Your task to perform on an android device: Go to privacy settings Image 0: 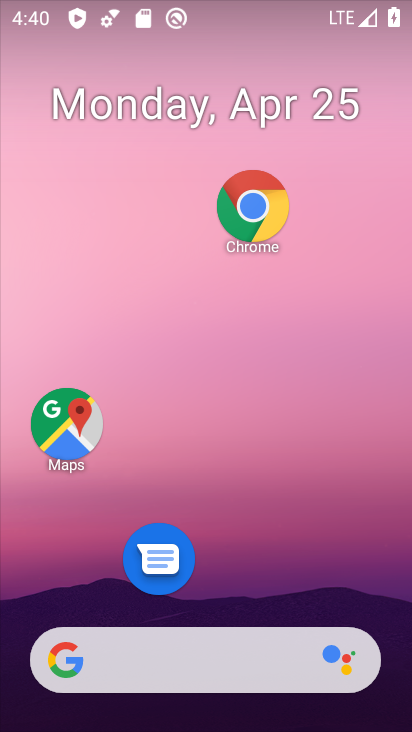
Step 0: drag from (242, 537) to (209, 17)
Your task to perform on an android device: Go to privacy settings Image 1: 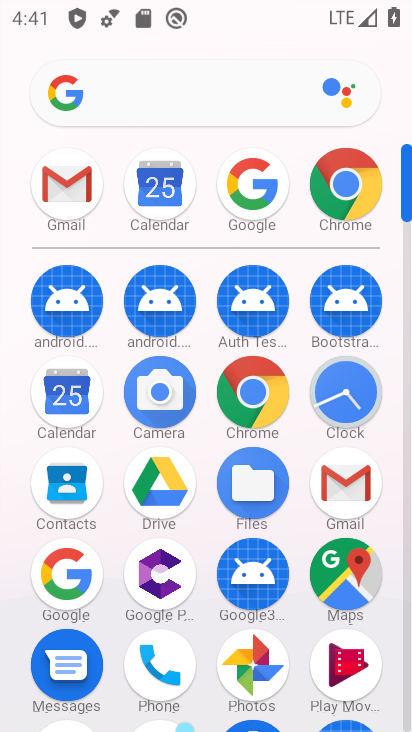
Step 1: drag from (120, 544) to (135, 338)
Your task to perform on an android device: Go to privacy settings Image 2: 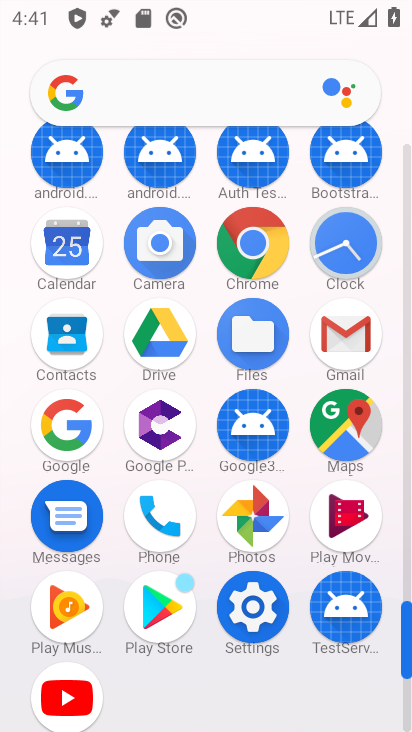
Step 2: click (250, 604)
Your task to perform on an android device: Go to privacy settings Image 3: 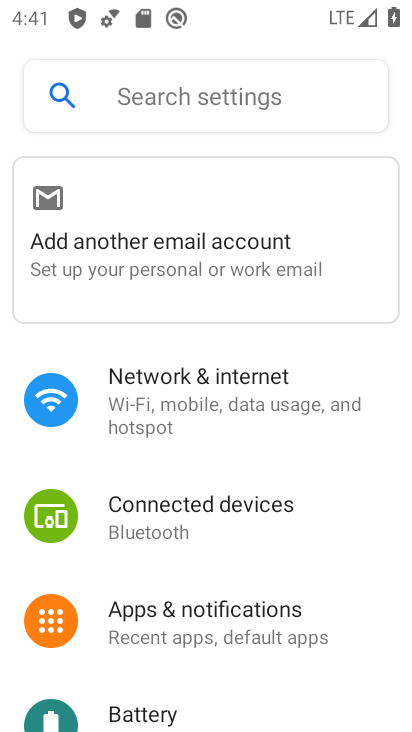
Step 3: drag from (248, 586) to (274, 540)
Your task to perform on an android device: Go to privacy settings Image 4: 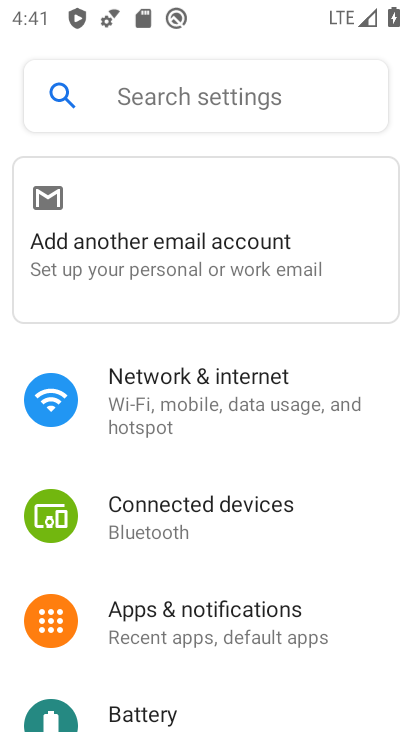
Step 4: drag from (217, 667) to (298, 511)
Your task to perform on an android device: Go to privacy settings Image 5: 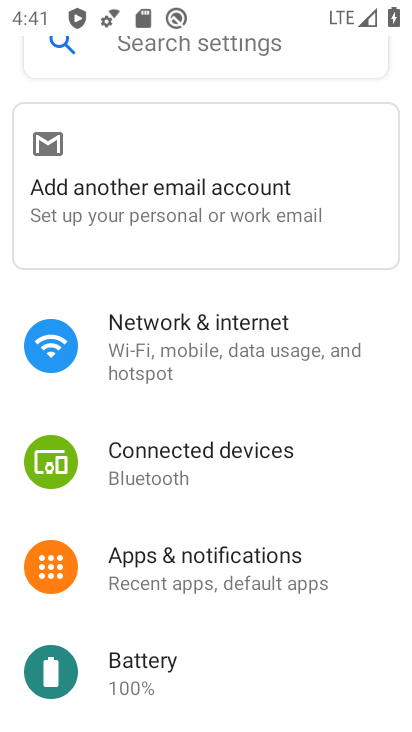
Step 5: drag from (224, 640) to (303, 488)
Your task to perform on an android device: Go to privacy settings Image 6: 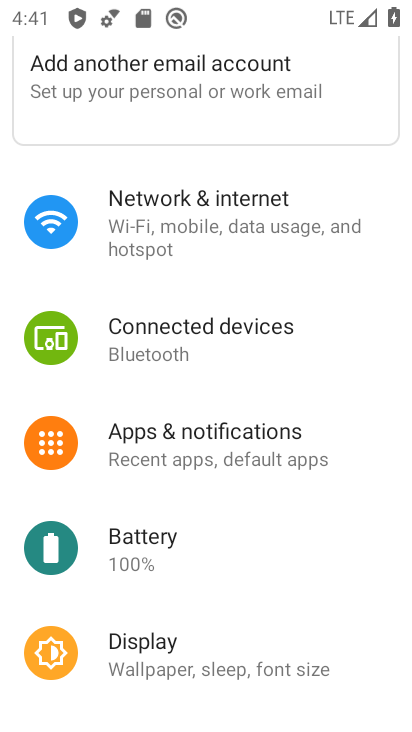
Step 6: drag from (187, 607) to (293, 474)
Your task to perform on an android device: Go to privacy settings Image 7: 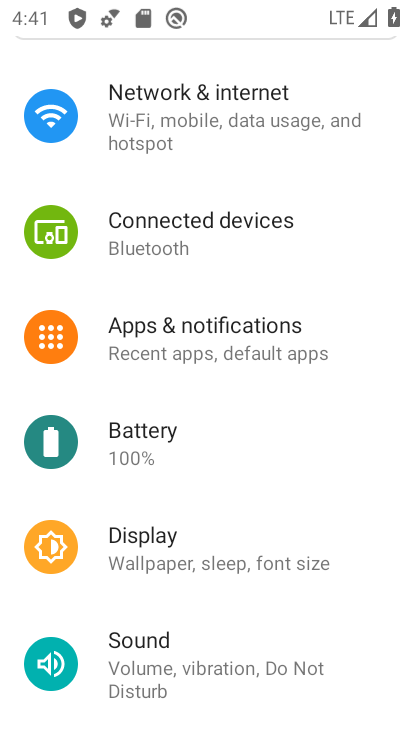
Step 7: drag from (173, 614) to (285, 483)
Your task to perform on an android device: Go to privacy settings Image 8: 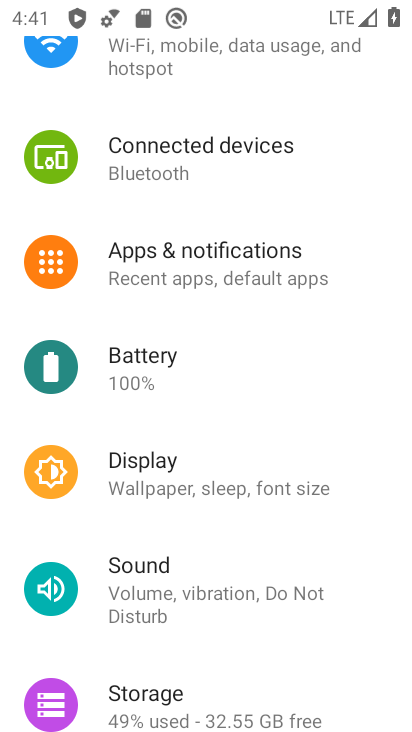
Step 8: drag from (152, 646) to (256, 512)
Your task to perform on an android device: Go to privacy settings Image 9: 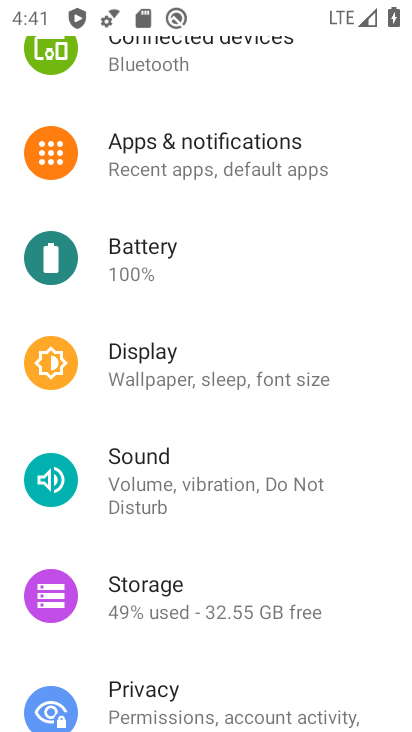
Step 9: drag from (158, 642) to (263, 520)
Your task to perform on an android device: Go to privacy settings Image 10: 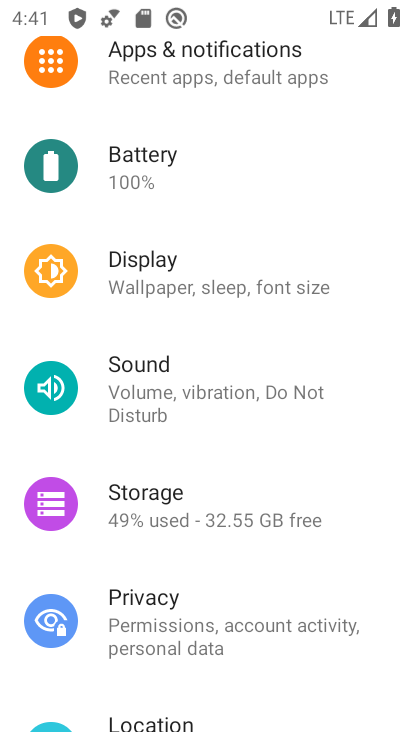
Step 10: click (161, 594)
Your task to perform on an android device: Go to privacy settings Image 11: 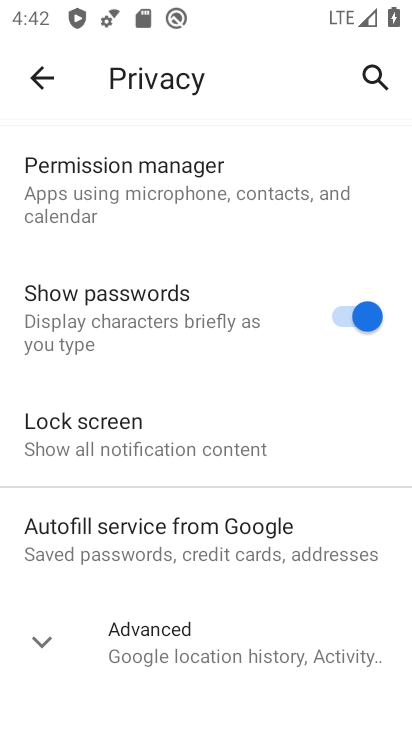
Step 11: task complete